Your task to perform on an android device: Toggle the flashlight Image 0: 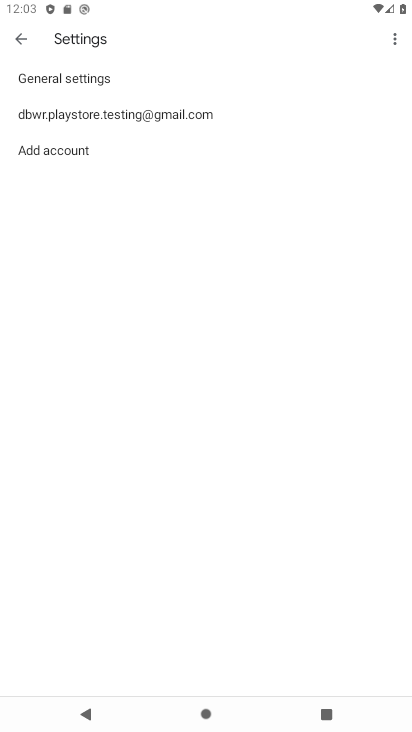
Step 0: press home button
Your task to perform on an android device: Toggle the flashlight Image 1: 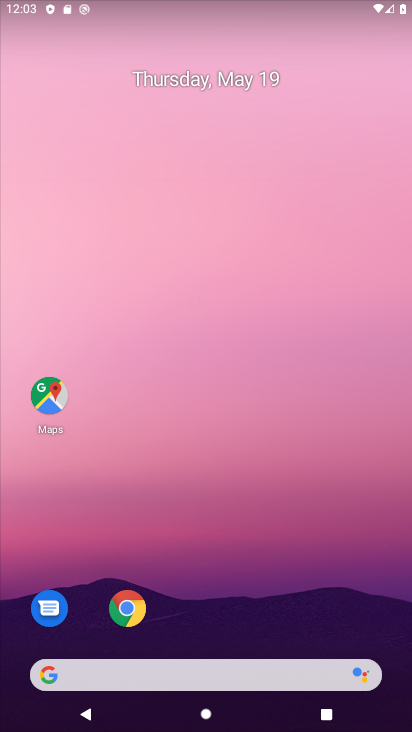
Step 1: drag from (273, 619) to (300, 173)
Your task to perform on an android device: Toggle the flashlight Image 2: 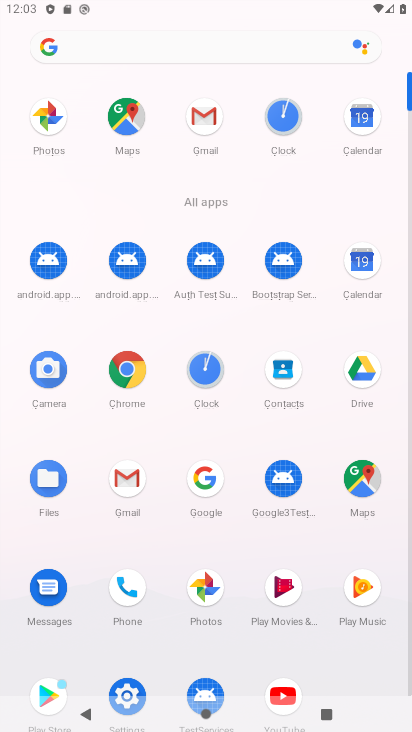
Step 2: drag from (164, 655) to (196, 459)
Your task to perform on an android device: Toggle the flashlight Image 3: 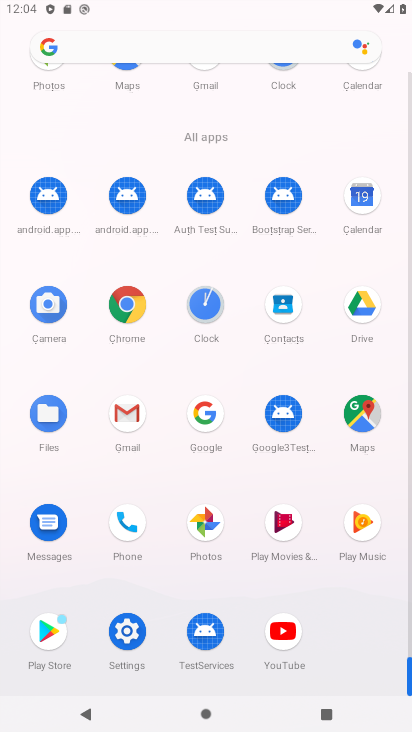
Step 3: click (131, 626)
Your task to perform on an android device: Toggle the flashlight Image 4: 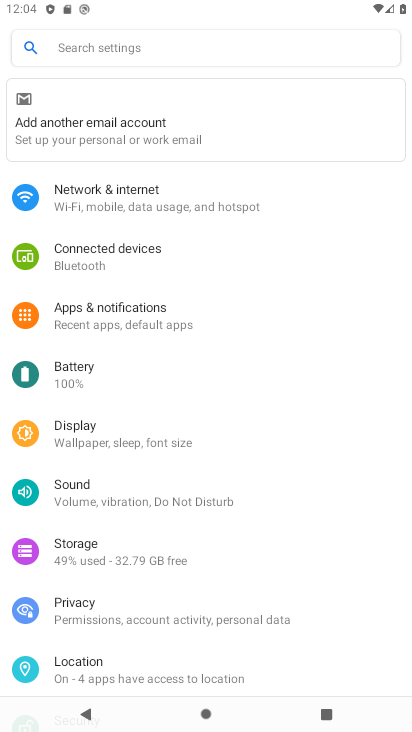
Step 4: task complete